Your task to perform on an android device: Open Google Maps and go to "Timeline" Image 0: 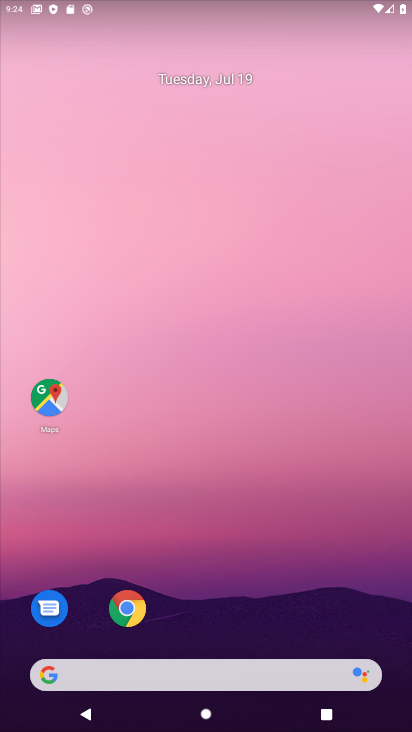
Step 0: drag from (342, 618) to (299, 103)
Your task to perform on an android device: Open Google Maps and go to "Timeline" Image 1: 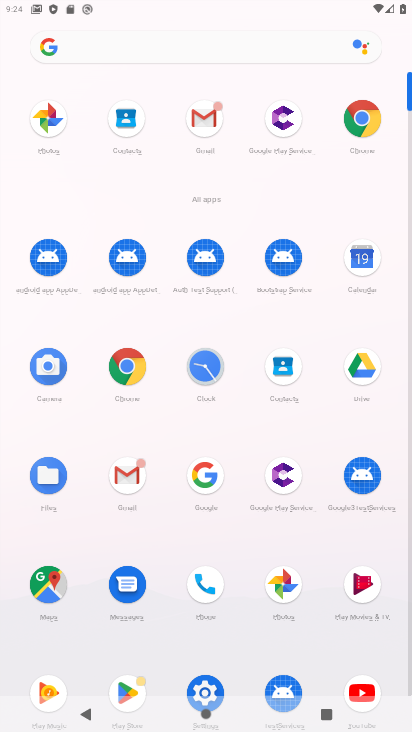
Step 1: click (35, 578)
Your task to perform on an android device: Open Google Maps and go to "Timeline" Image 2: 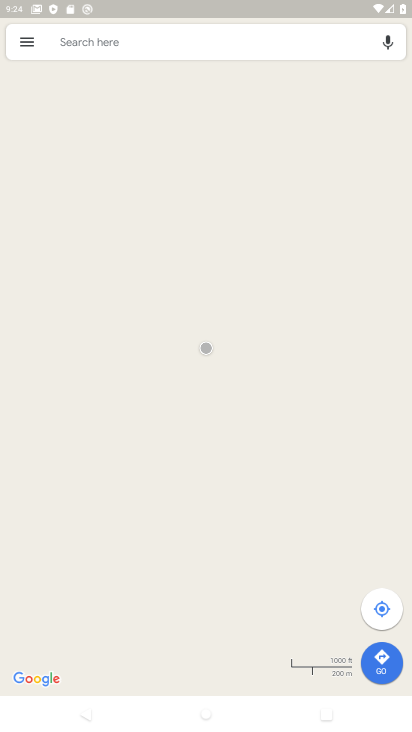
Step 2: click (19, 38)
Your task to perform on an android device: Open Google Maps and go to "Timeline" Image 3: 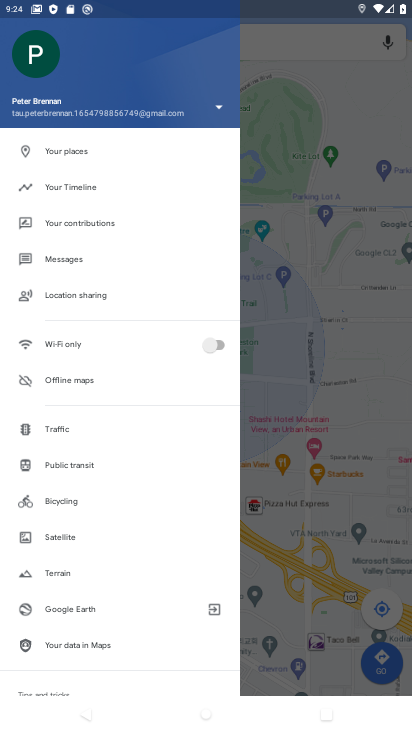
Step 3: click (71, 192)
Your task to perform on an android device: Open Google Maps and go to "Timeline" Image 4: 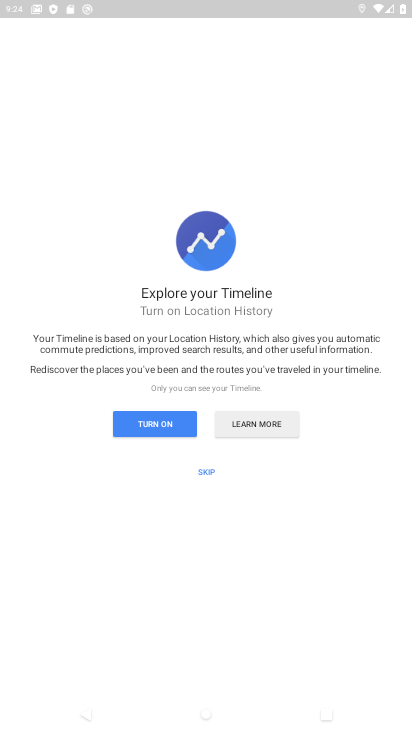
Step 4: click (178, 432)
Your task to perform on an android device: Open Google Maps and go to "Timeline" Image 5: 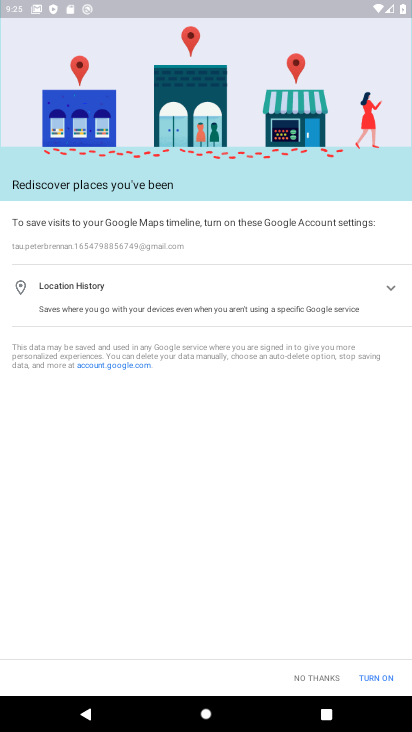
Step 5: click (312, 674)
Your task to perform on an android device: Open Google Maps and go to "Timeline" Image 6: 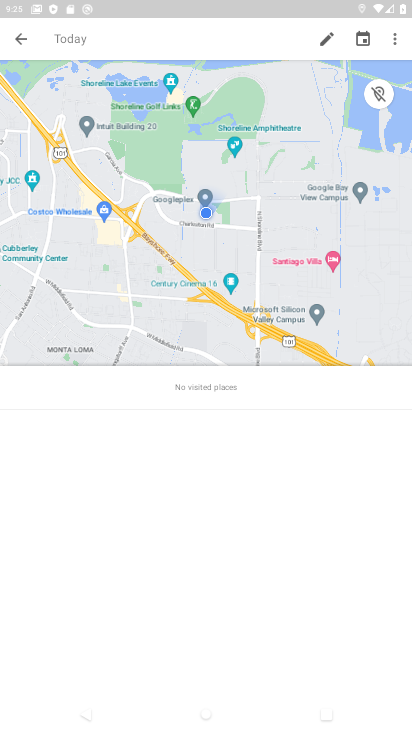
Step 6: task complete